Your task to perform on an android device: turn notification dots on Image 0: 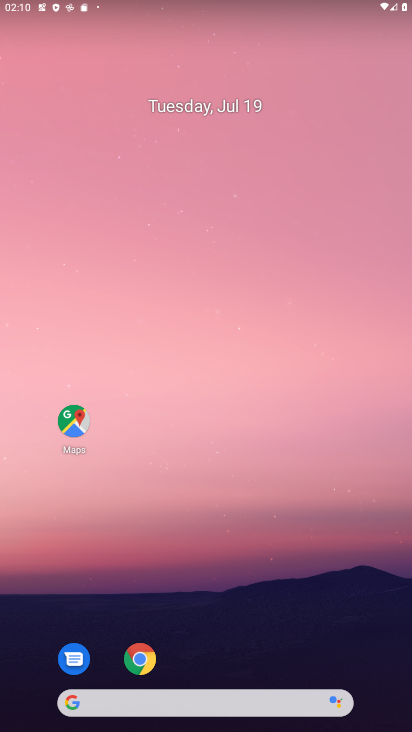
Step 0: press home button
Your task to perform on an android device: turn notification dots on Image 1: 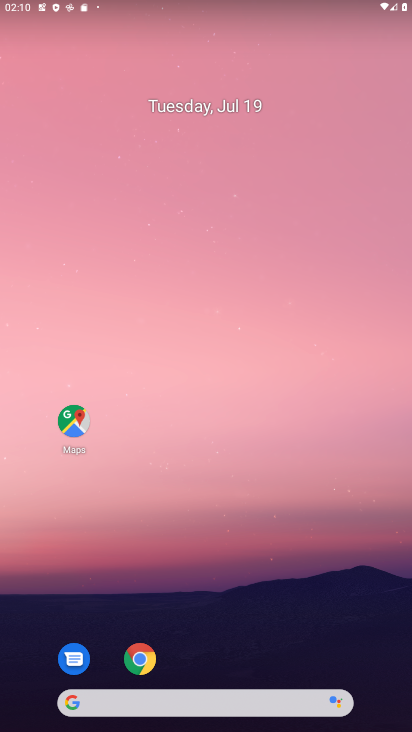
Step 1: drag from (251, 612) to (277, 1)
Your task to perform on an android device: turn notification dots on Image 2: 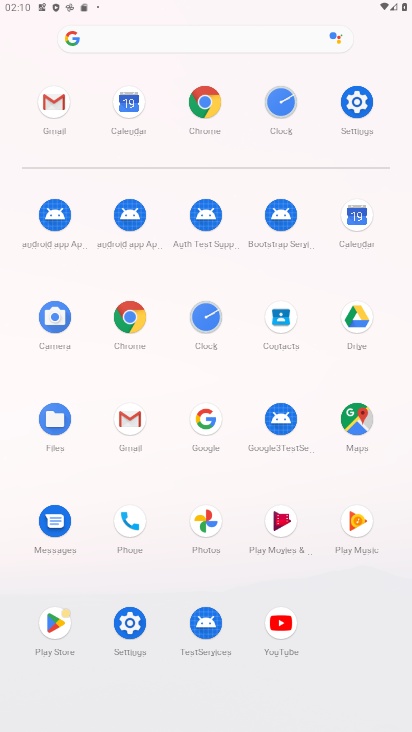
Step 2: click (139, 633)
Your task to perform on an android device: turn notification dots on Image 3: 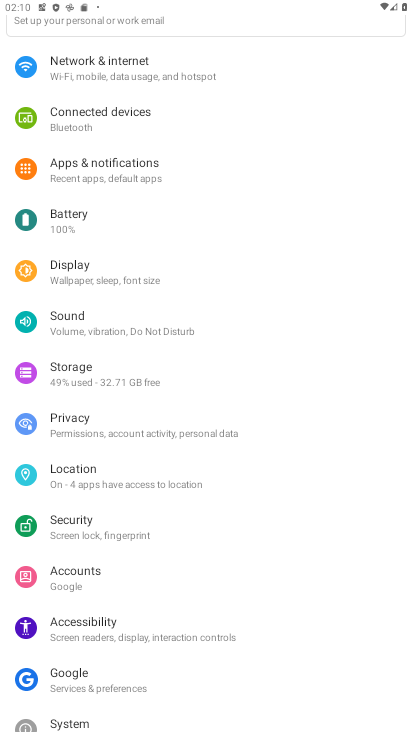
Step 3: click (106, 185)
Your task to perform on an android device: turn notification dots on Image 4: 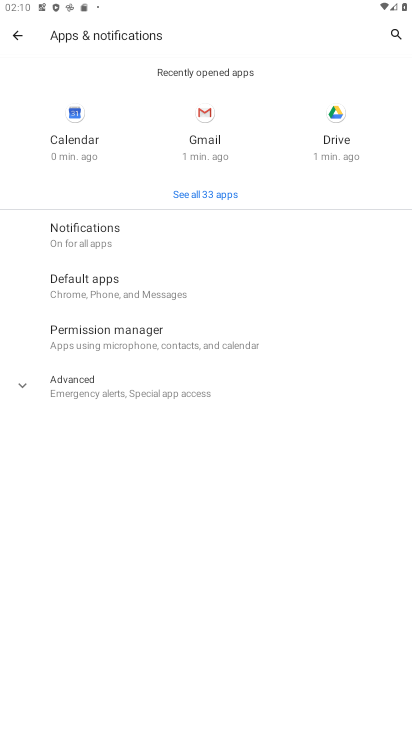
Step 4: click (106, 254)
Your task to perform on an android device: turn notification dots on Image 5: 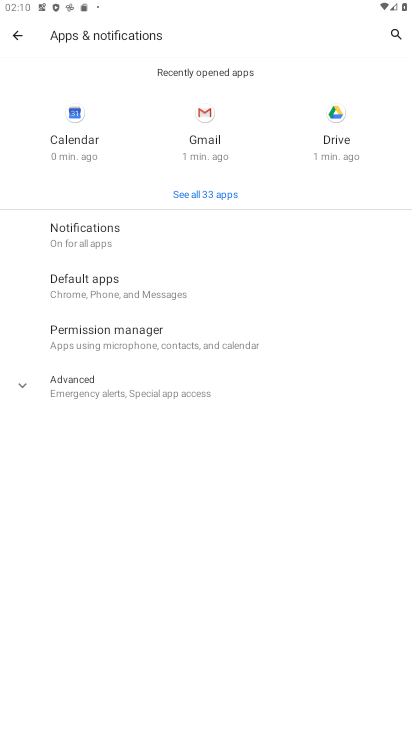
Step 5: click (106, 254)
Your task to perform on an android device: turn notification dots on Image 6: 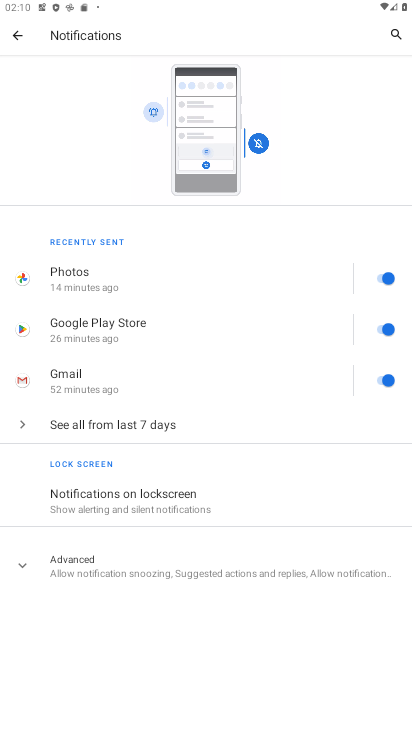
Step 6: click (114, 490)
Your task to perform on an android device: turn notification dots on Image 7: 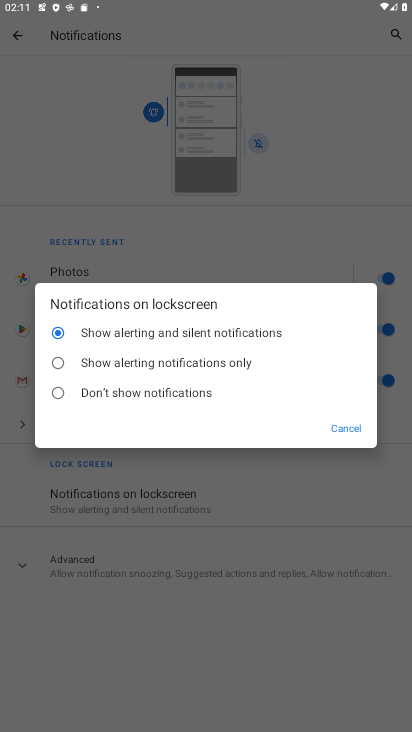
Step 7: click (129, 496)
Your task to perform on an android device: turn notification dots on Image 8: 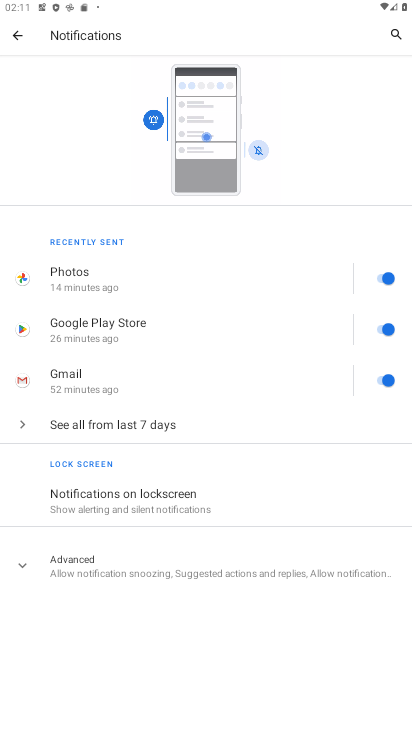
Step 8: click (108, 581)
Your task to perform on an android device: turn notification dots on Image 9: 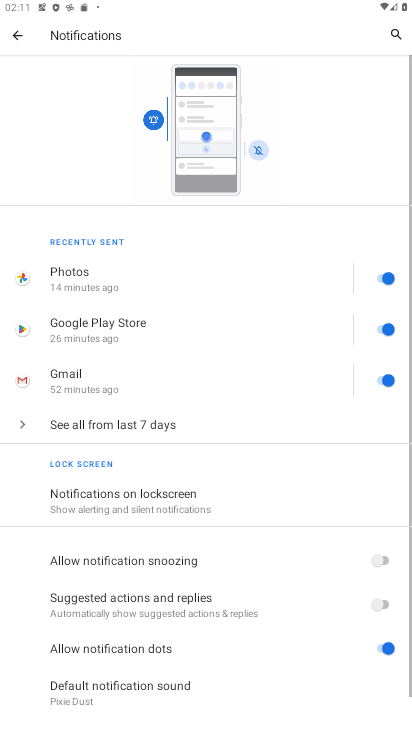
Step 9: task complete